Your task to perform on an android device: open a new tab in the chrome app Image 0: 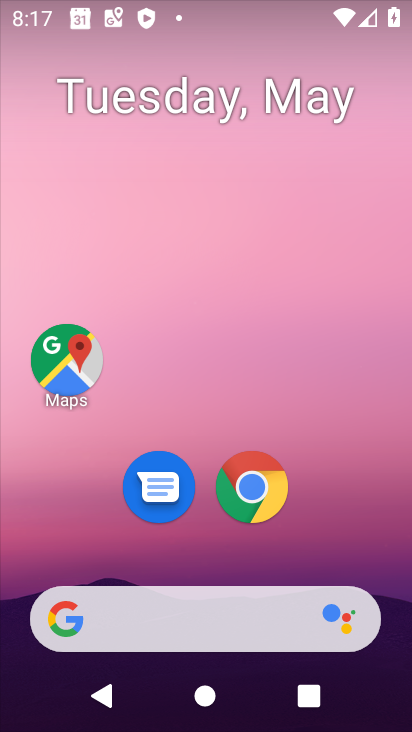
Step 0: drag from (375, 559) to (368, 255)
Your task to perform on an android device: open a new tab in the chrome app Image 1: 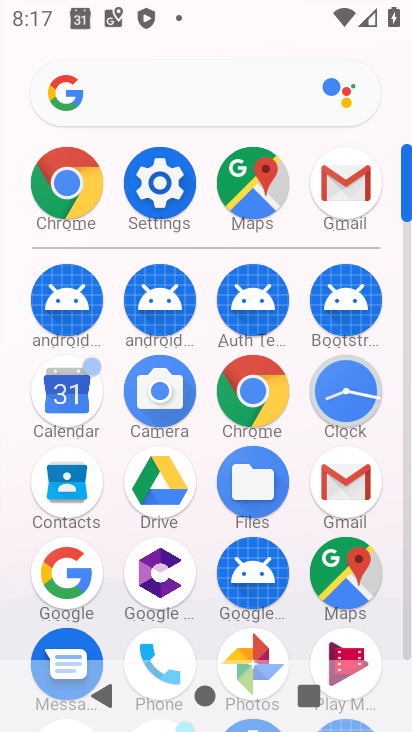
Step 1: click (277, 408)
Your task to perform on an android device: open a new tab in the chrome app Image 2: 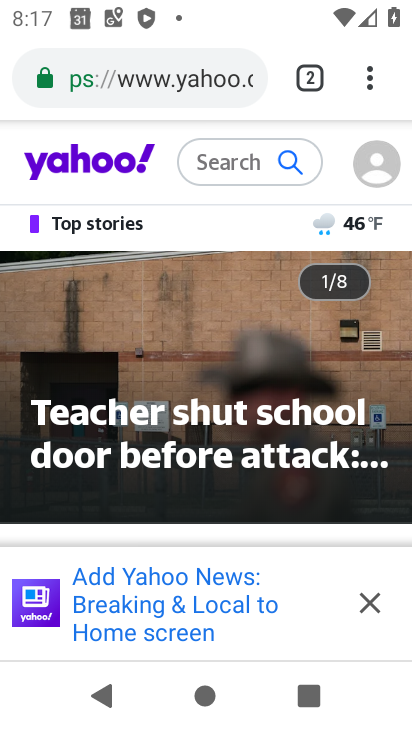
Step 2: click (373, 86)
Your task to perform on an android device: open a new tab in the chrome app Image 3: 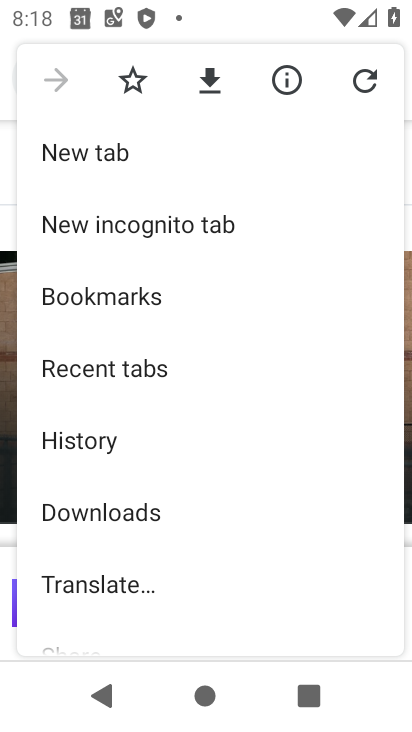
Step 3: click (145, 161)
Your task to perform on an android device: open a new tab in the chrome app Image 4: 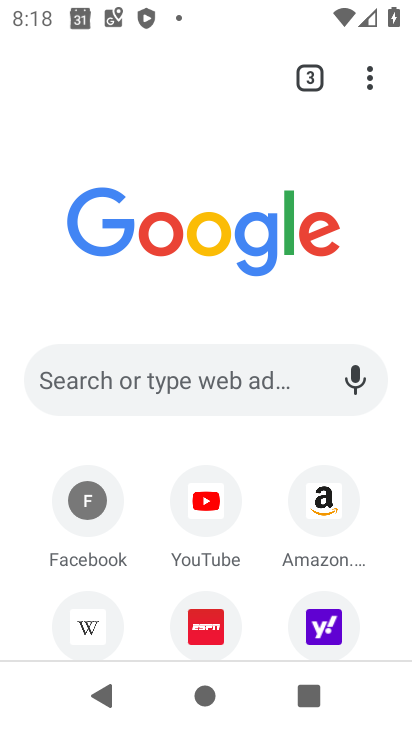
Step 4: task complete